Your task to perform on an android device: Open Yahoo.com Image 0: 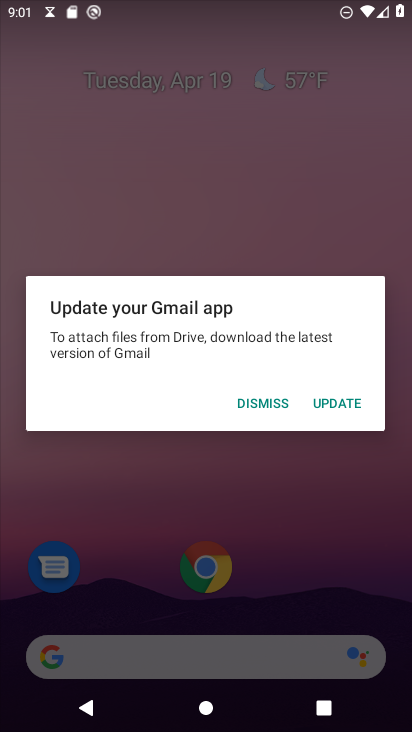
Step 0: press home button
Your task to perform on an android device: Open Yahoo.com Image 1: 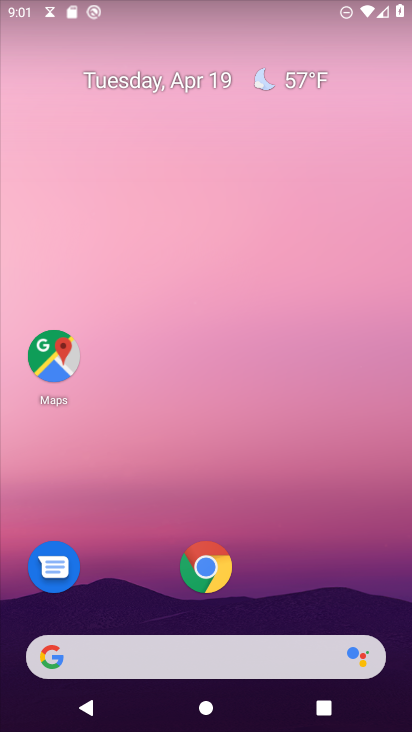
Step 1: drag from (346, 405) to (391, 12)
Your task to perform on an android device: Open Yahoo.com Image 2: 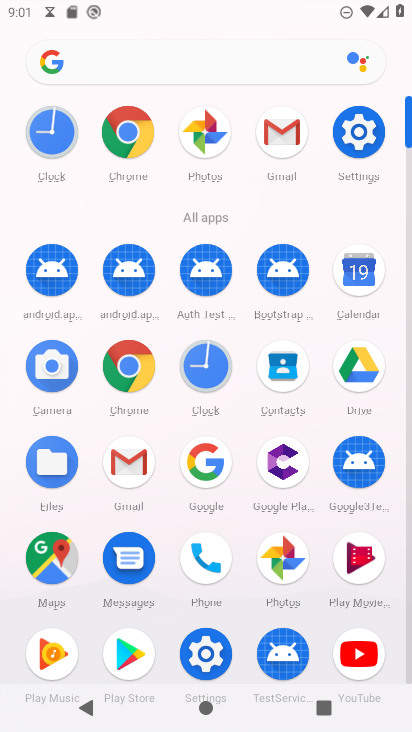
Step 2: click (129, 142)
Your task to perform on an android device: Open Yahoo.com Image 3: 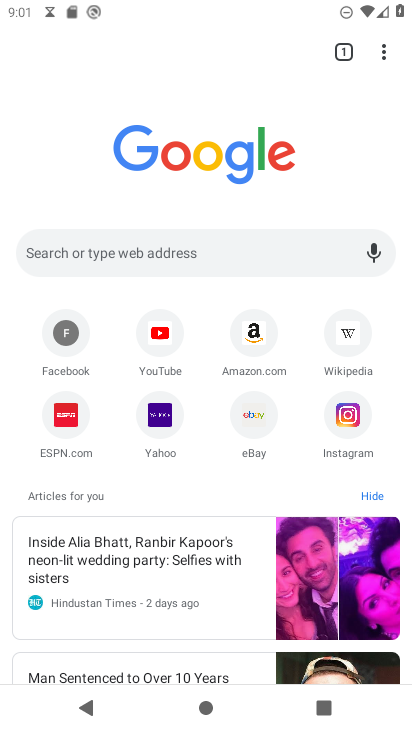
Step 3: click (158, 426)
Your task to perform on an android device: Open Yahoo.com Image 4: 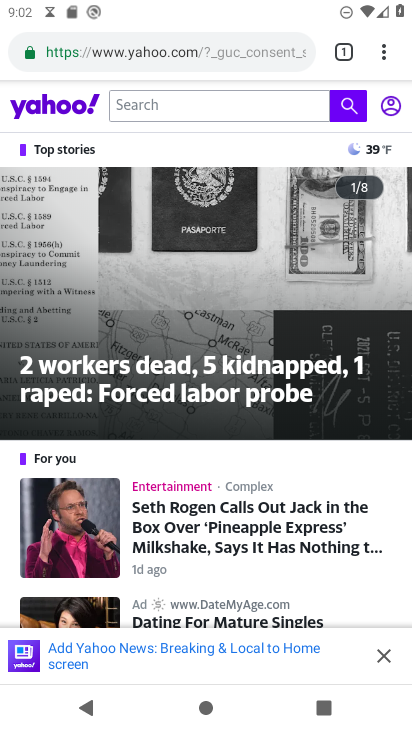
Step 4: task complete